Your task to perform on an android device: Open notification settings Image 0: 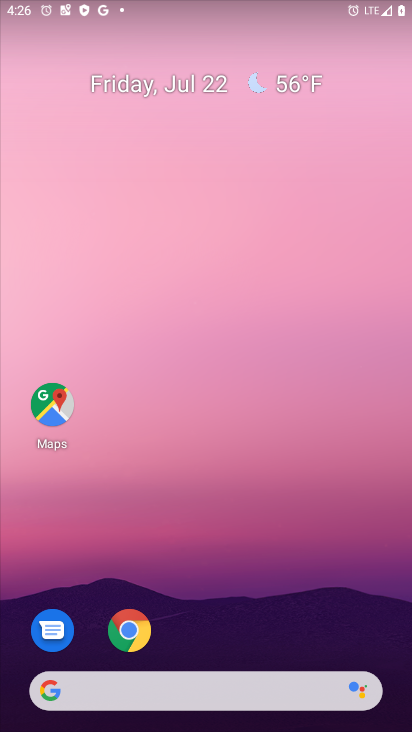
Step 0: drag from (163, 695) to (231, 119)
Your task to perform on an android device: Open notification settings Image 1: 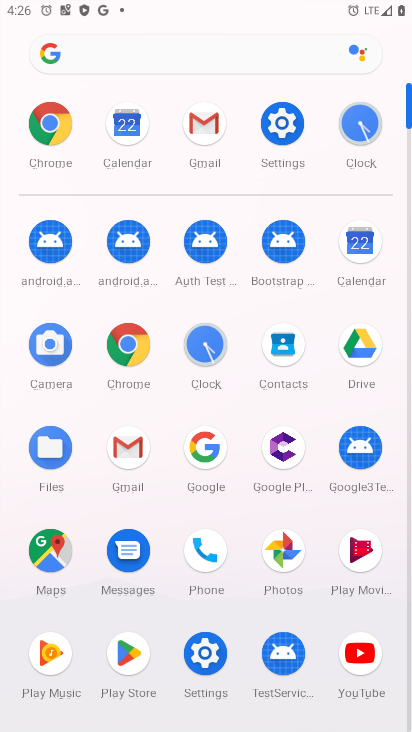
Step 1: click (284, 127)
Your task to perform on an android device: Open notification settings Image 2: 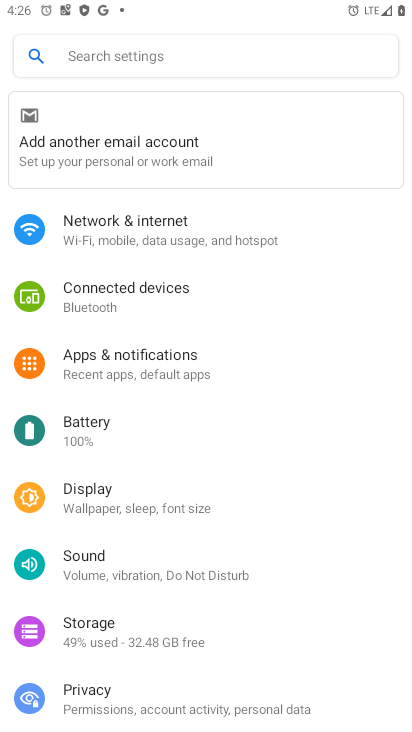
Step 2: click (149, 376)
Your task to perform on an android device: Open notification settings Image 3: 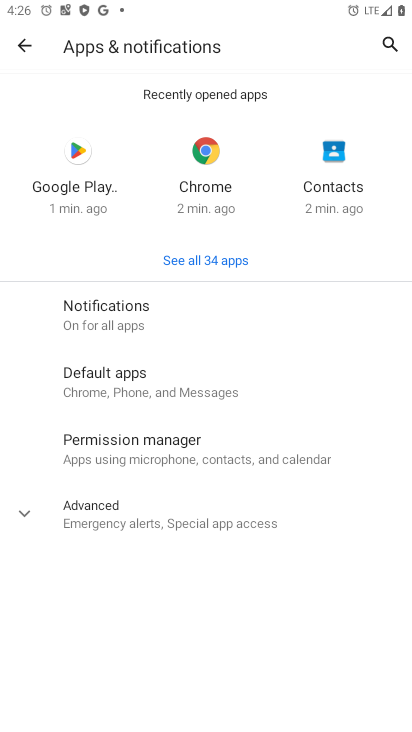
Step 3: task complete